Your task to perform on an android device: What's the weather? Image 0: 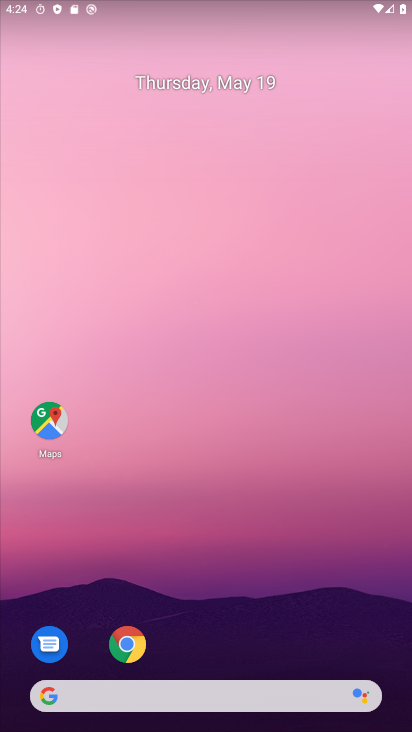
Step 0: drag from (203, 689) to (216, 247)
Your task to perform on an android device: What's the weather? Image 1: 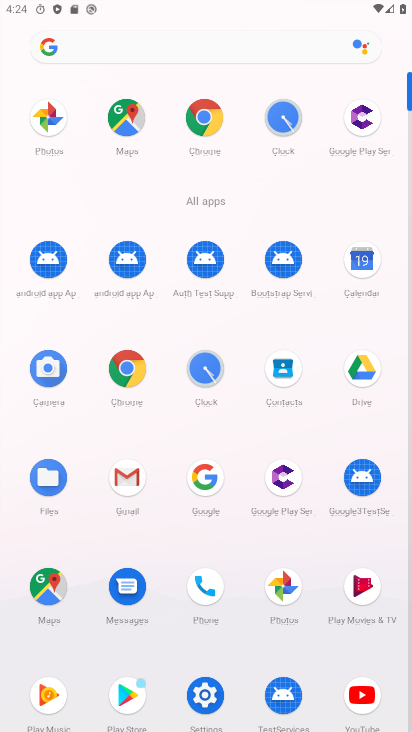
Step 1: click (208, 475)
Your task to perform on an android device: What's the weather? Image 2: 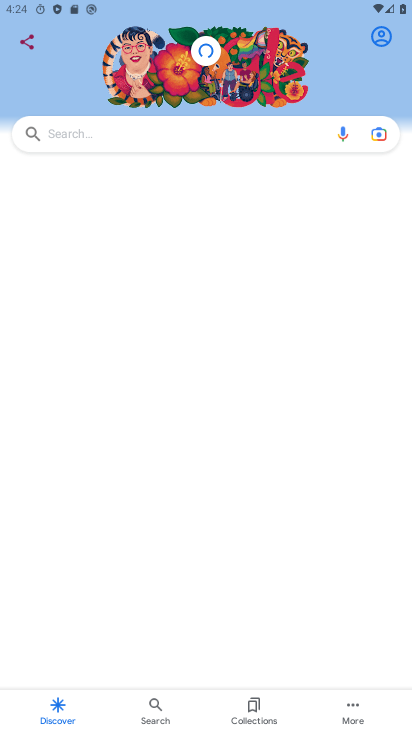
Step 2: click (94, 133)
Your task to perform on an android device: What's the weather? Image 3: 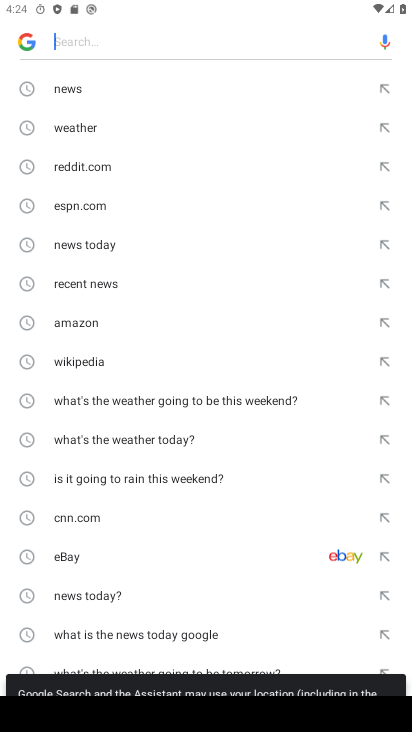
Step 3: click (79, 129)
Your task to perform on an android device: What's the weather? Image 4: 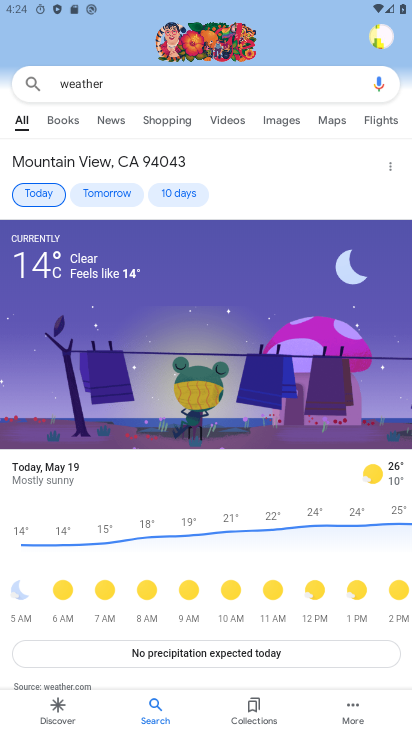
Step 4: task complete